Your task to perform on an android device: Open calendar and show me the fourth week of next month Image 0: 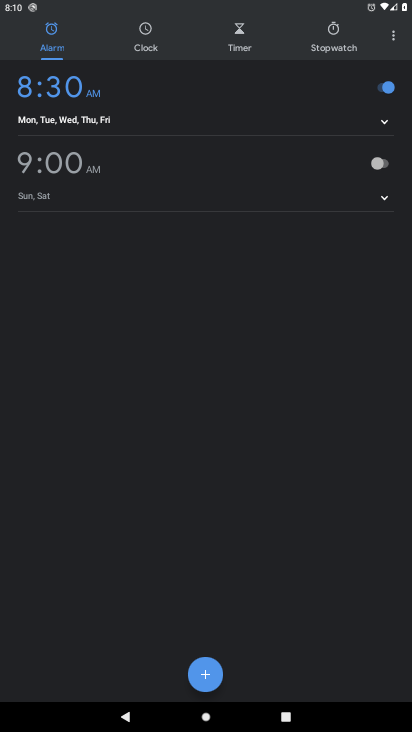
Step 0: click (93, 690)
Your task to perform on an android device: Open calendar and show me the fourth week of next month Image 1: 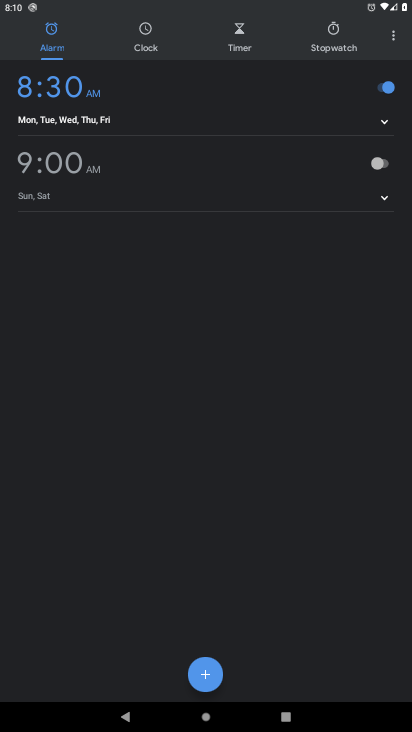
Step 1: press home button
Your task to perform on an android device: Open calendar and show me the fourth week of next month Image 2: 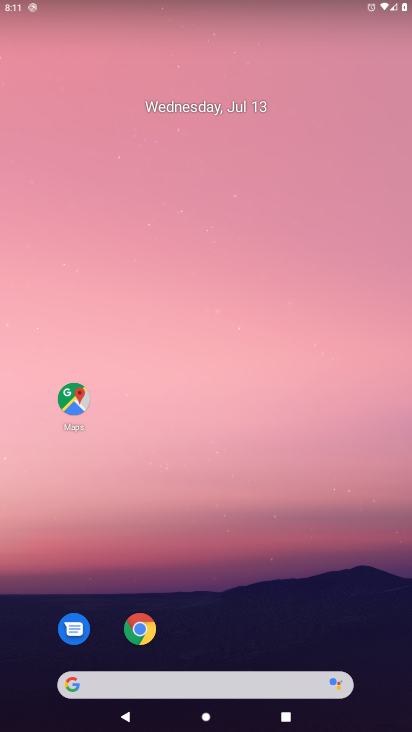
Step 2: drag from (33, 712) to (252, 125)
Your task to perform on an android device: Open calendar and show me the fourth week of next month Image 3: 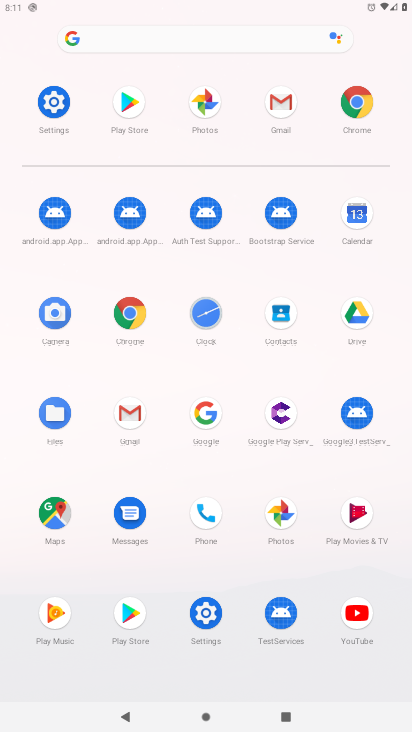
Step 3: click (344, 221)
Your task to perform on an android device: Open calendar and show me the fourth week of next month Image 4: 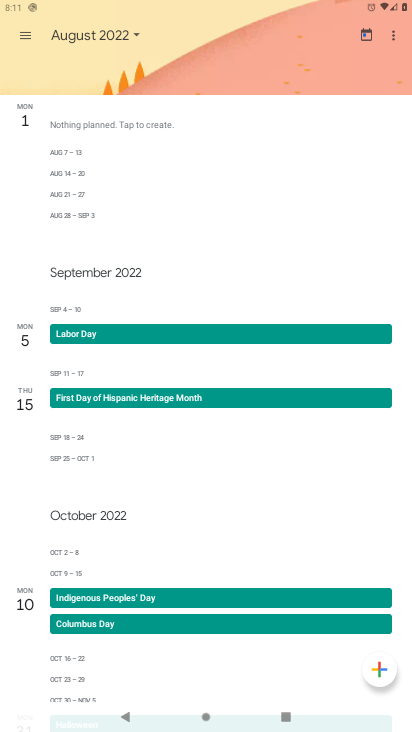
Step 4: click (97, 22)
Your task to perform on an android device: Open calendar and show me the fourth week of next month Image 5: 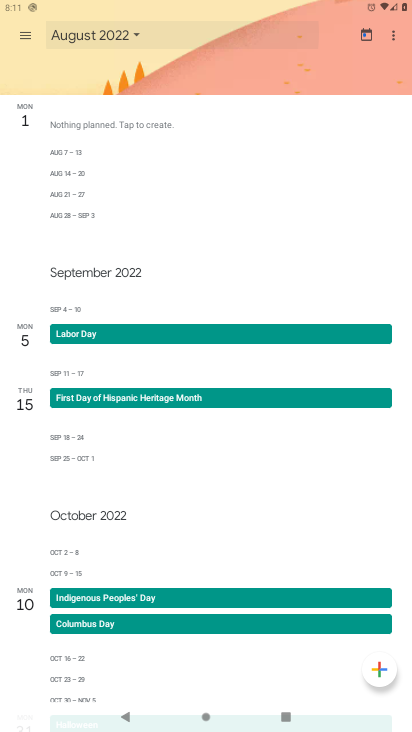
Step 5: click (97, 26)
Your task to perform on an android device: Open calendar and show me the fourth week of next month Image 6: 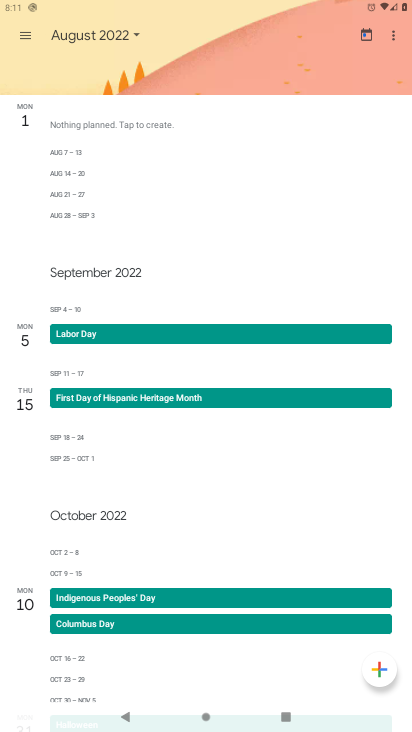
Step 6: click (98, 37)
Your task to perform on an android device: Open calendar and show me the fourth week of next month Image 7: 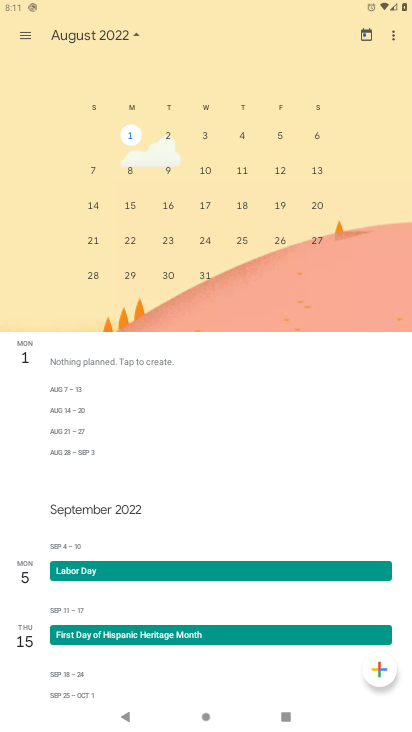
Step 7: click (125, 241)
Your task to perform on an android device: Open calendar and show me the fourth week of next month Image 8: 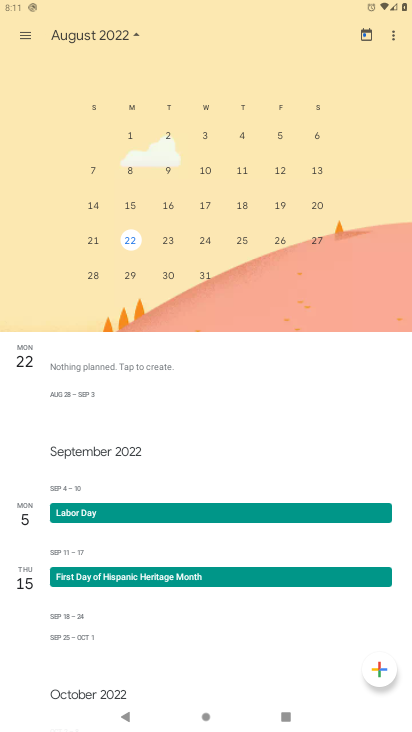
Step 8: task complete